Your task to perform on an android device: Open Google Maps and go to "Timeline" Image 0: 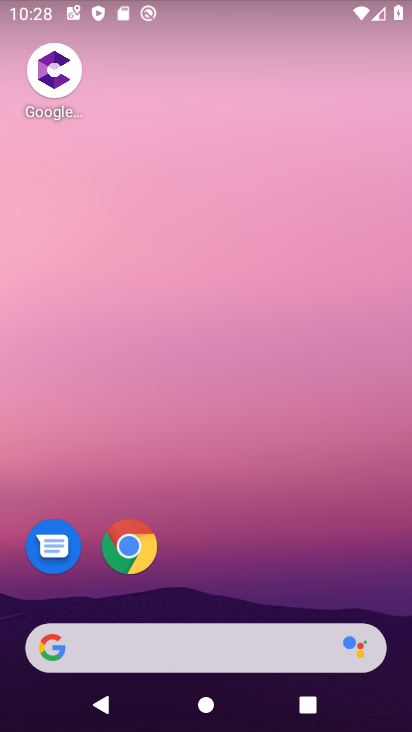
Step 0: drag from (264, 604) to (249, 87)
Your task to perform on an android device: Open Google Maps and go to "Timeline" Image 1: 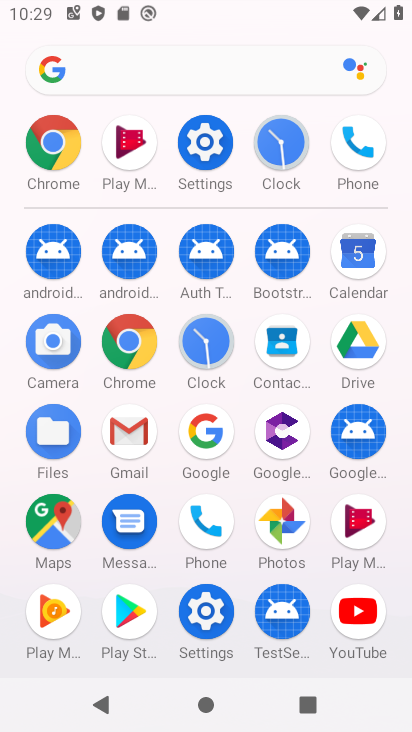
Step 1: click (58, 515)
Your task to perform on an android device: Open Google Maps and go to "Timeline" Image 2: 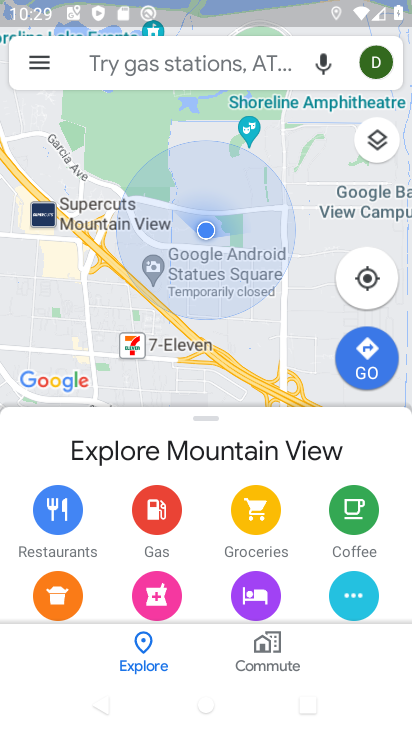
Step 2: click (38, 64)
Your task to perform on an android device: Open Google Maps and go to "Timeline" Image 3: 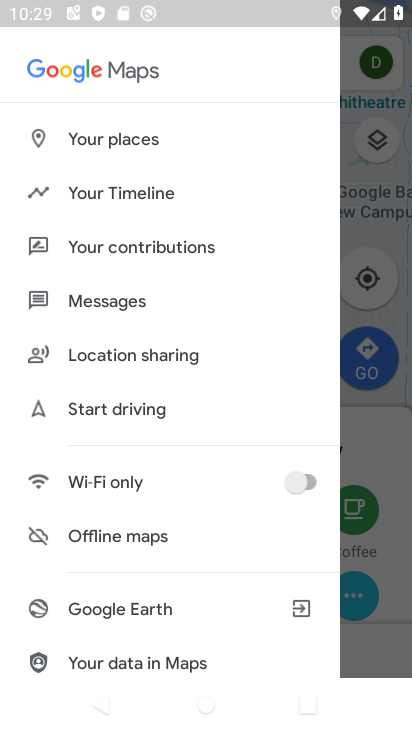
Step 3: click (109, 180)
Your task to perform on an android device: Open Google Maps and go to "Timeline" Image 4: 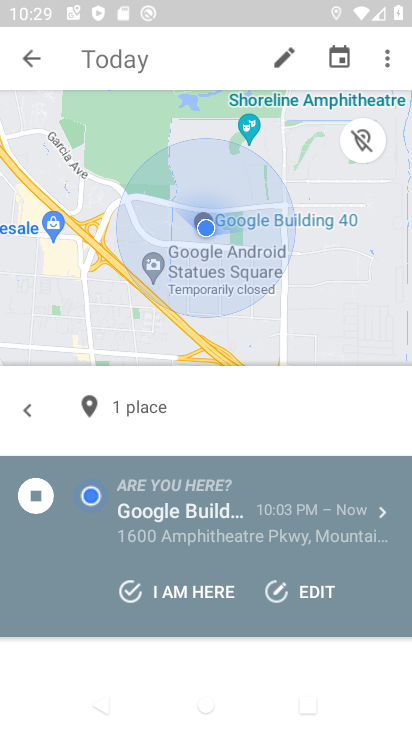
Step 4: task complete